Your task to perform on an android device: Go to accessibility settings Image 0: 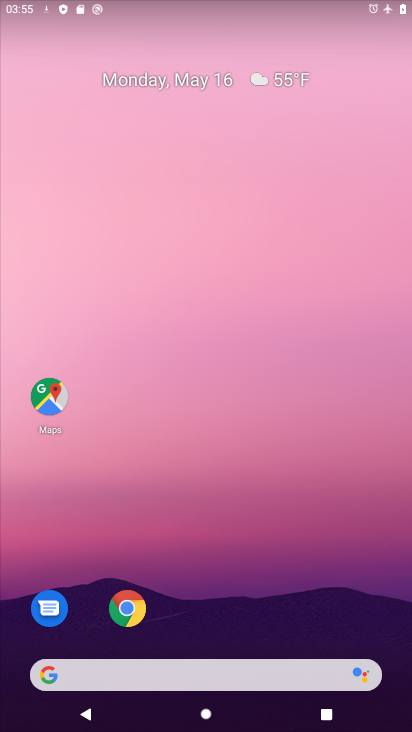
Step 0: drag from (188, 628) to (233, 232)
Your task to perform on an android device: Go to accessibility settings Image 1: 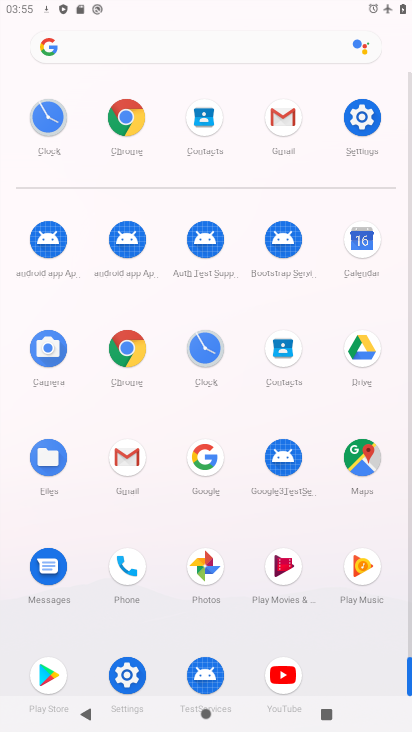
Step 1: click (340, 126)
Your task to perform on an android device: Go to accessibility settings Image 2: 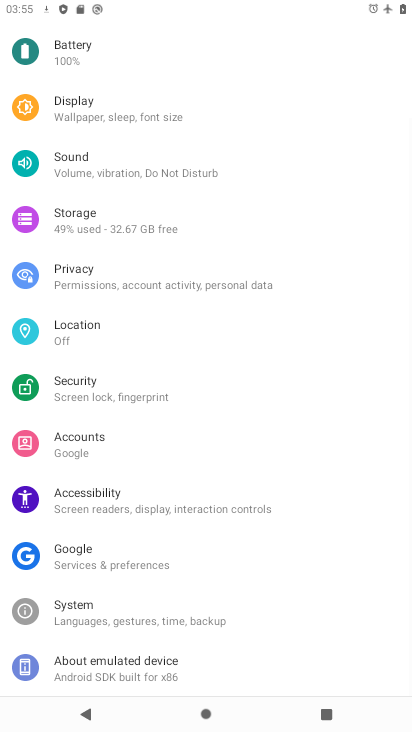
Step 2: click (131, 507)
Your task to perform on an android device: Go to accessibility settings Image 3: 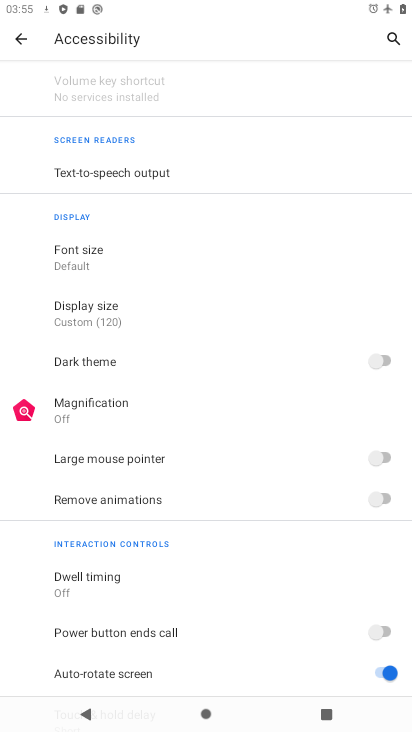
Step 3: task complete